Your task to perform on an android device: change notifications settings Image 0: 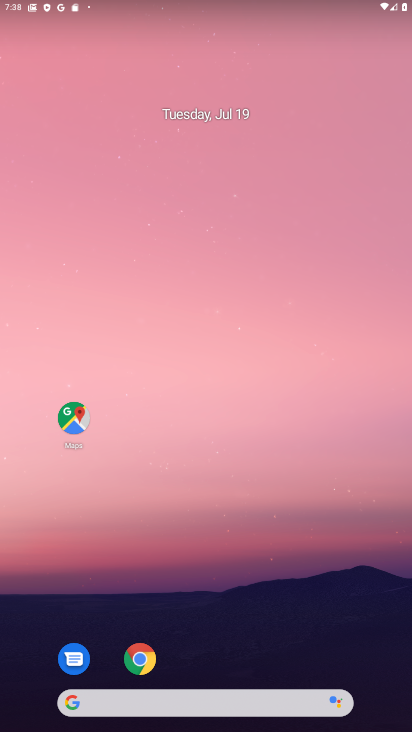
Step 0: drag from (219, 655) to (207, 9)
Your task to perform on an android device: change notifications settings Image 1: 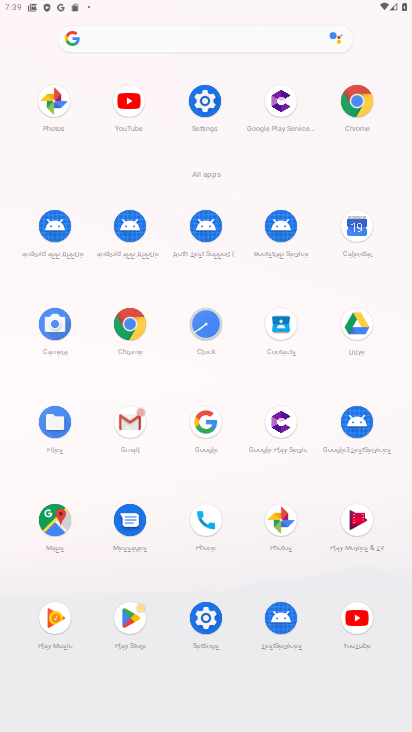
Step 1: click (203, 615)
Your task to perform on an android device: change notifications settings Image 2: 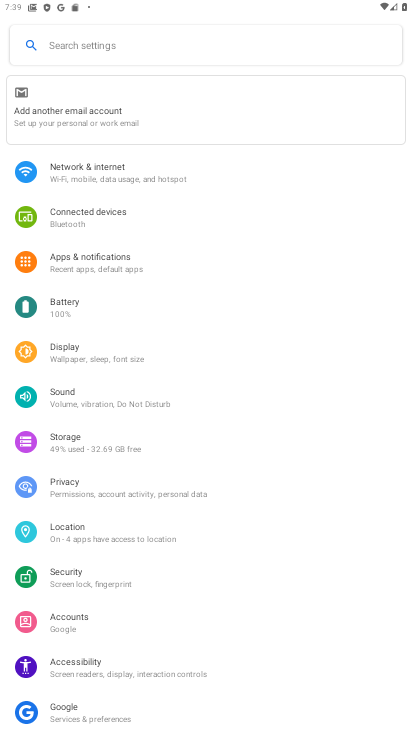
Step 2: click (121, 264)
Your task to perform on an android device: change notifications settings Image 3: 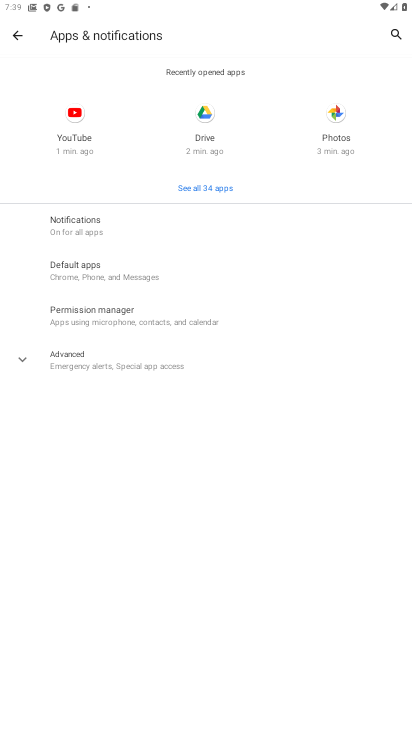
Step 3: click (82, 230)
Your task to perform on an android device: change notifications settings Image 4: 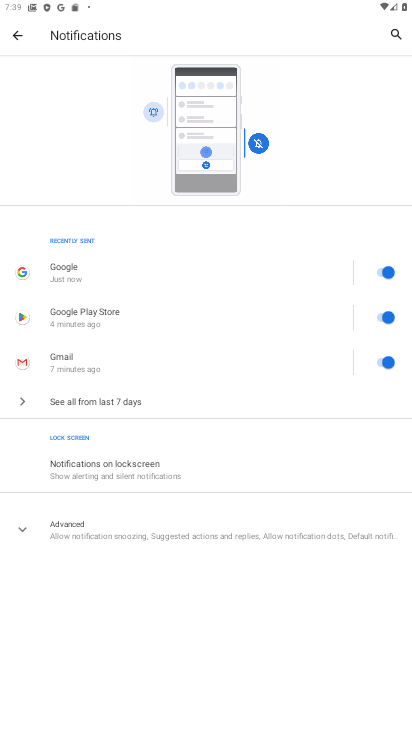
Step 4: click (120, 398)
Your task to perform on an android device: change notifications settings Image 5: 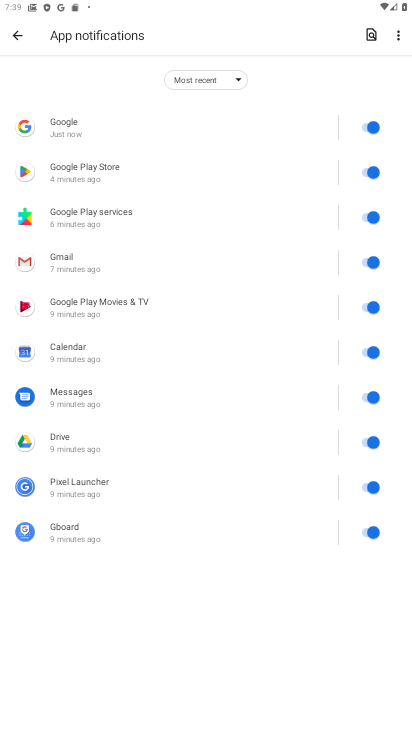
Step 5: click (349, 127)
Your task to perform on an android device: change notifications settings Image 6: 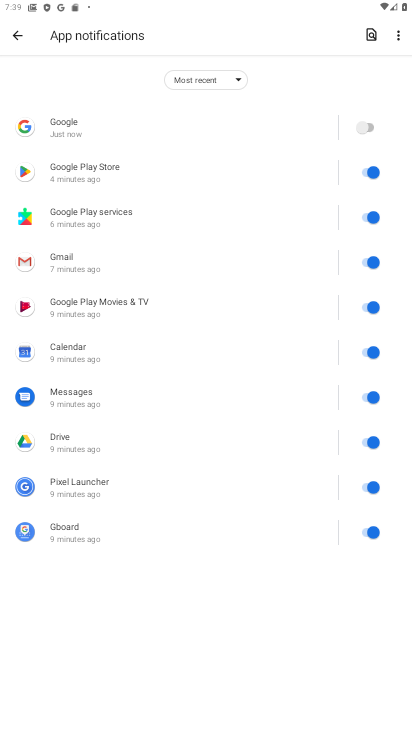
Step 6: click (360, 177)
Your task to perform on an android device: change notifications settings Image 7: 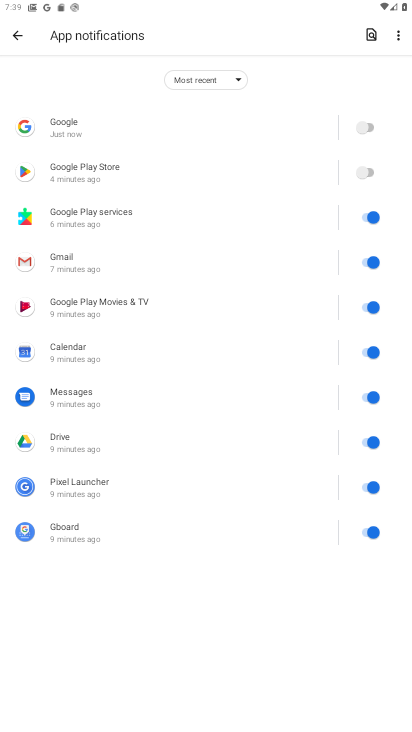
Step 7: click (354, 216)
Your task to perform on an android device: change notifications settings Image 8: 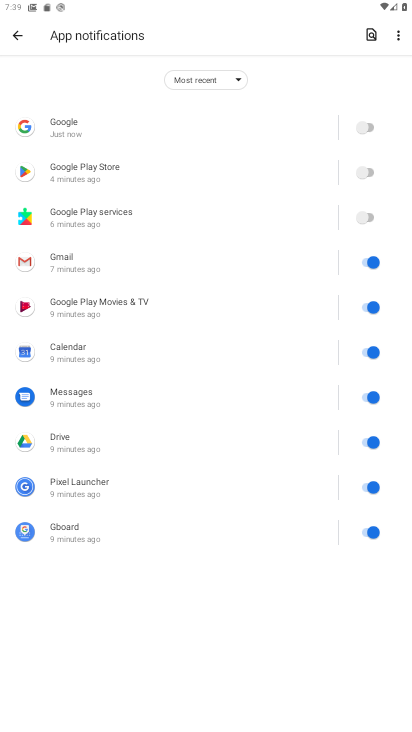
Step 8: click (365, 265)
Your task to perform on an android device: change notifications settings Image 9: 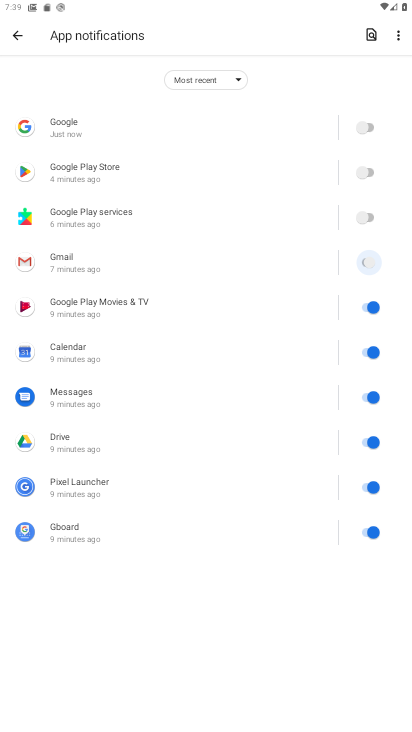
Step 9: click (349, 319)
Your task to perform on an android device: change notifications settings Image 10: 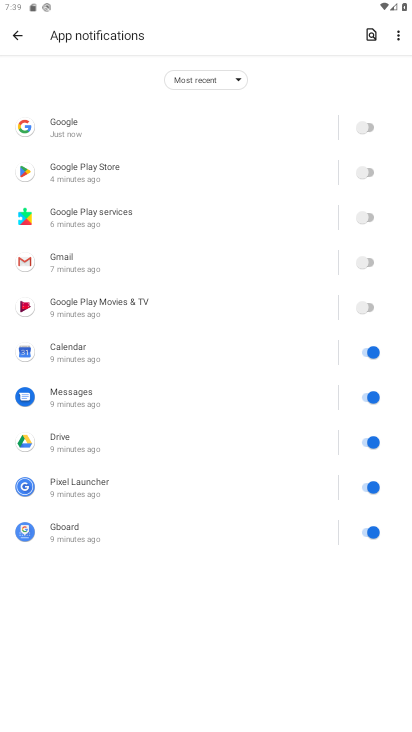
Step 10: click (364, 349)
Your task to perform on an android device: change notifications settings Image 11: 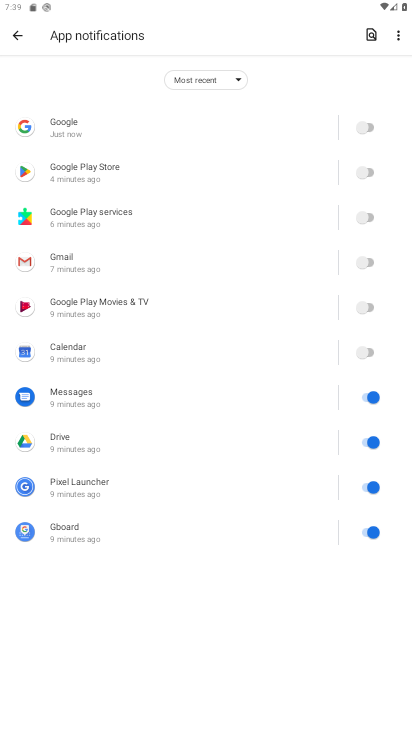
Step 11: click (357, 401)
Your task to perform on an android device: change notifications settings Image 12: 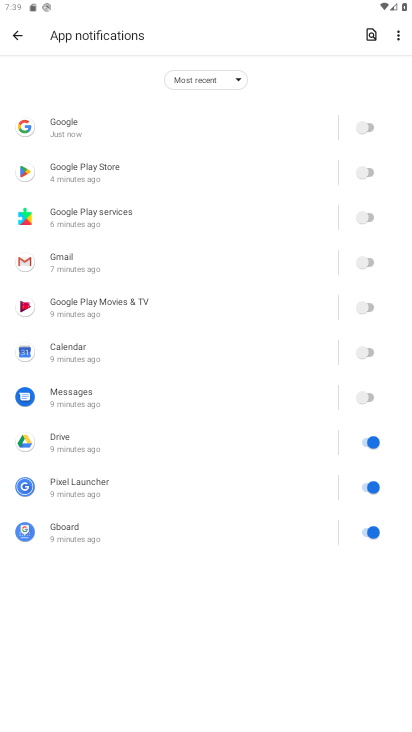
Step 12: click (354, 433)
Your task to perform on an android device: change notifications settings Image 13: 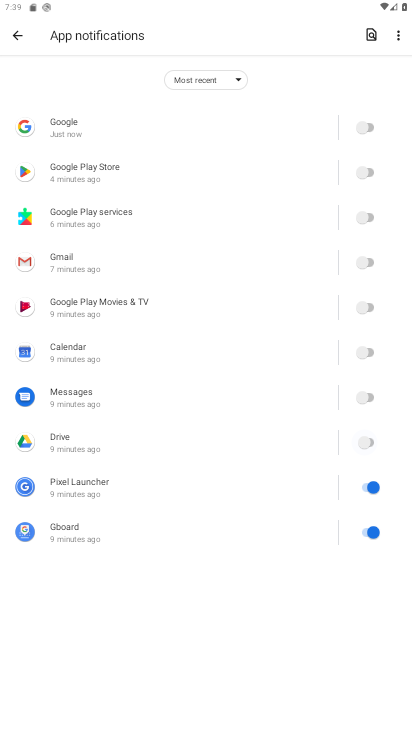
Step 13: click (360, 482)
Your task to perform on an android device: change notifications settings Image 14: 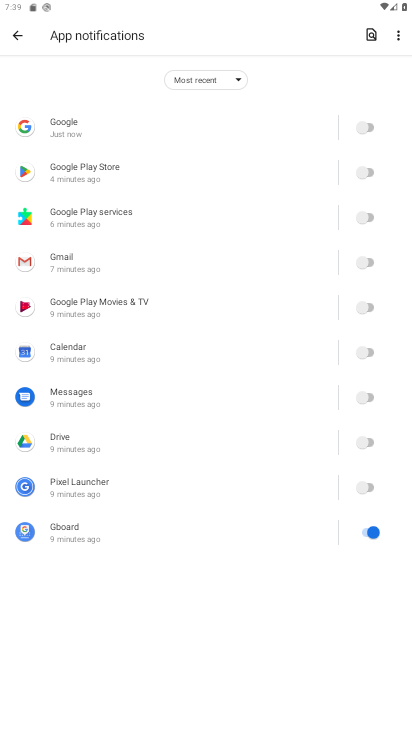
Step 14: click (362, 539)
Your task to perform on an android device: change notifications settings Image 15: 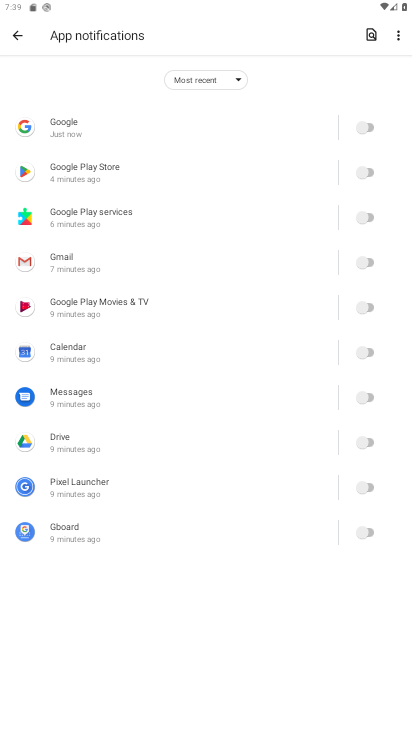
Step 15: task complete